Your task to perform on an android device: toggle sleep mode Image 0: 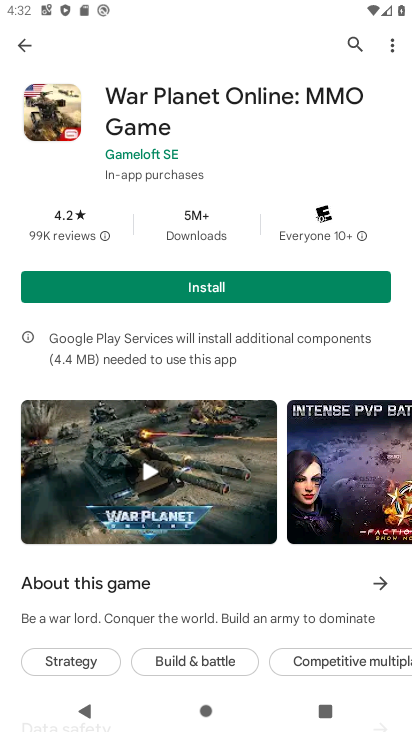
Step 0: press home button
Your task to perform on an android device: toggle sleep mode Image 1: 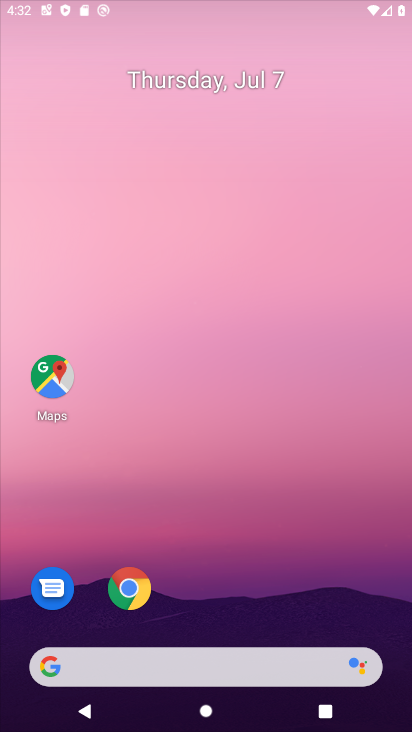
Step 1: drag from (327, 655) to (285, 12)
Your task to perform on an android device: toggle sleep mode Image 2: 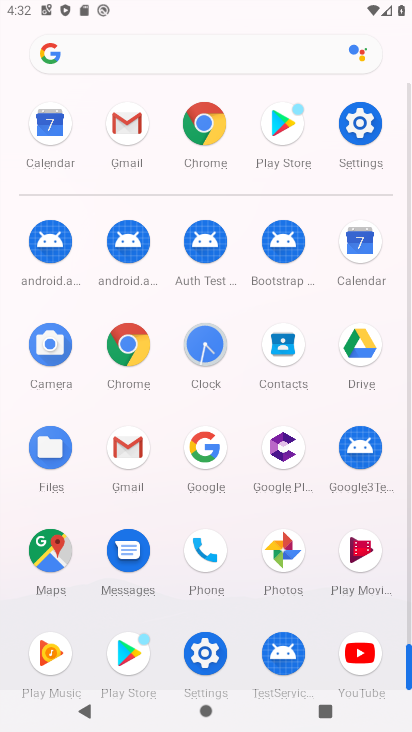
Step 2: click (376, 134)
Your task to perform on an android device: toggle sleep mode Image 3: 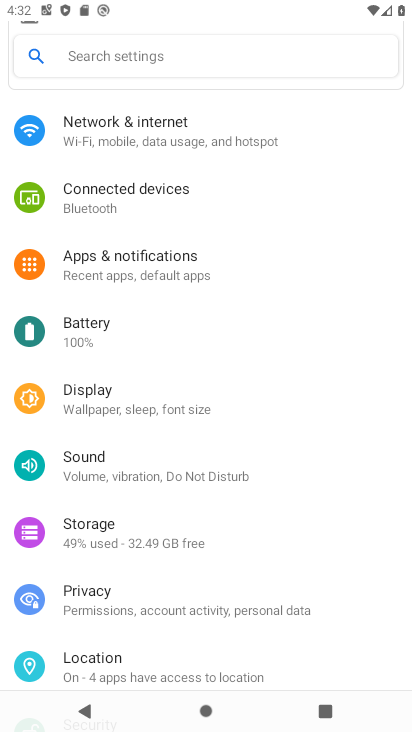
Step 3: click (122, 402)
Your task to perform on an android device: toggle sleep mode Image 4: 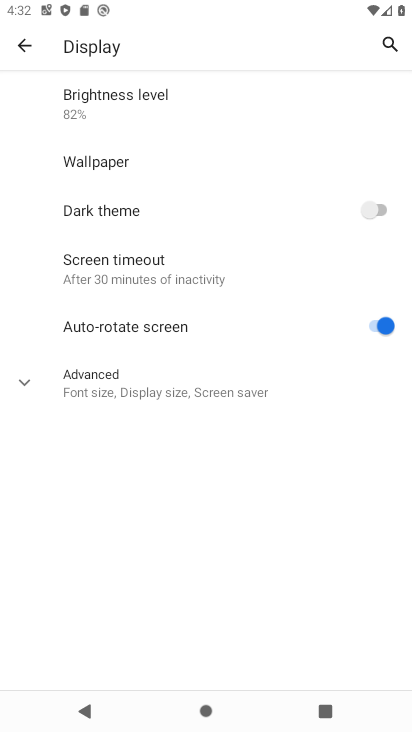
Step 4: click (150, 257)
Your task to perform on an android device: toggle sleep mode Image 5: 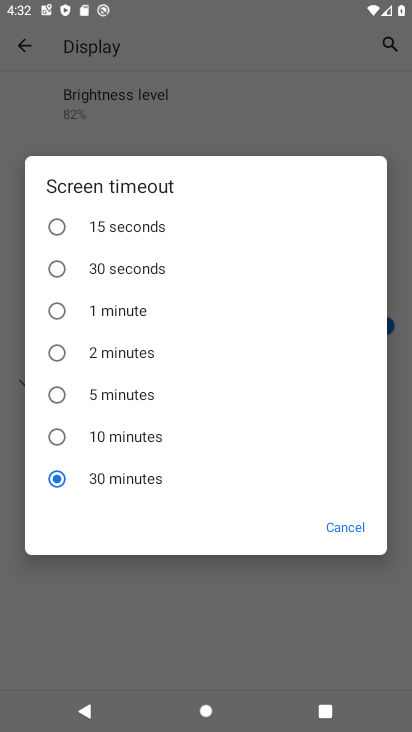
Step 5: task complete